Your task to perform on an android device: set the stopwatch Image 0: 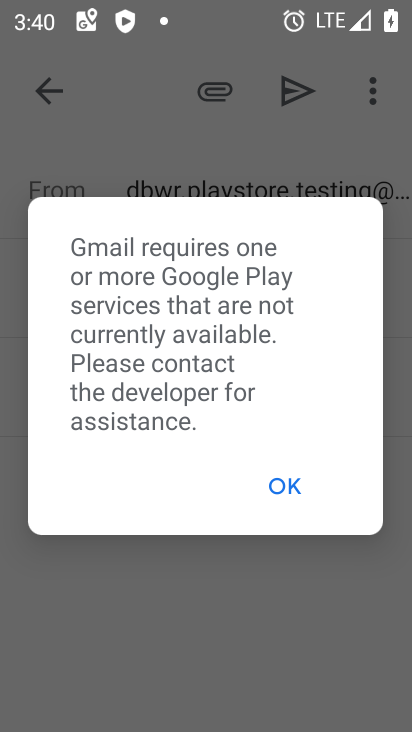
Step 0: drag from (331, 688) to (226, 159)
Your task to perform on an android device: set the stopwatch Image 1: 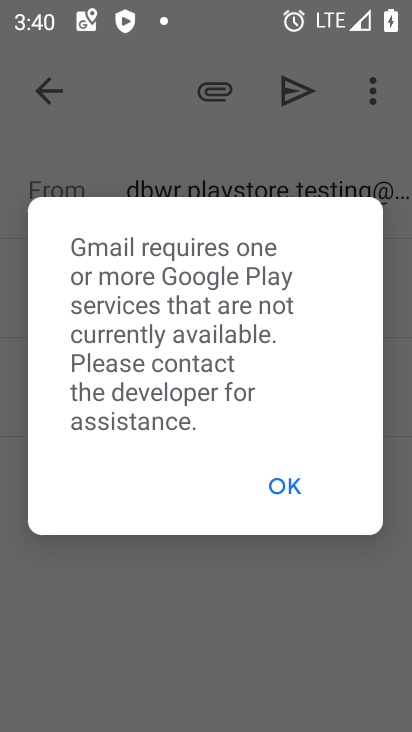
Step 1: click (273, 484)
Your task to perform on an android device: set the stopwatch Image 2: 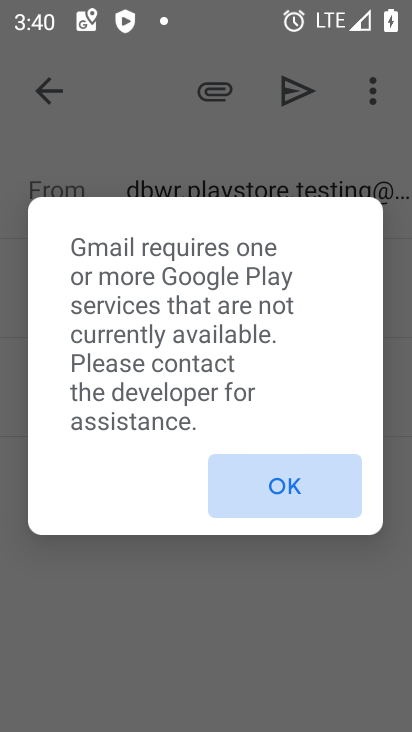
Step 2: click (268, 480)
Your task to perform on an android device: set the stopwatch Image 3: 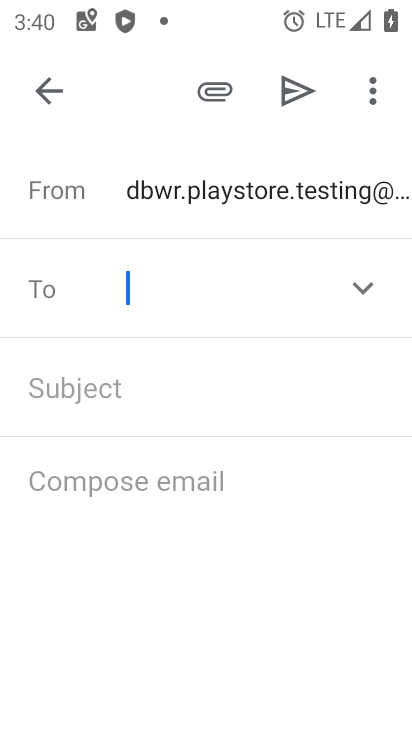
Step 3: click (268, 480)
Your task to perform on an android device: set the stopwatch Image 4: 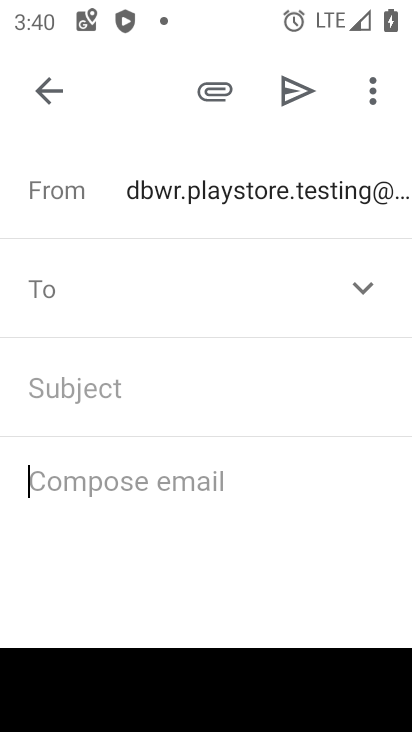
Step 4: click (70, 88)
Your task to perform on an android device: set the stopwatch Image 5: 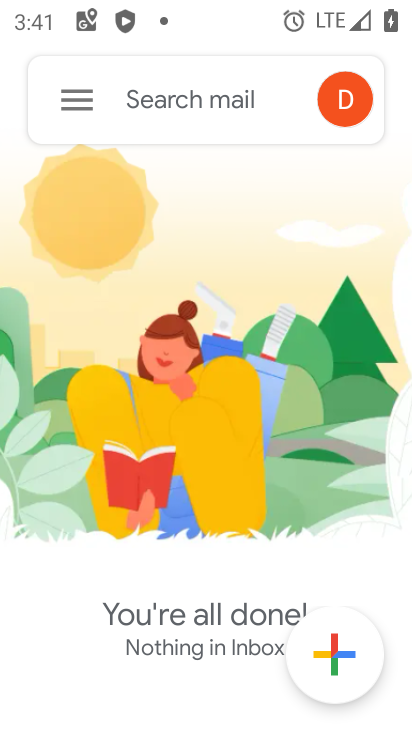
Step 5: press home button
Your task to perform on an android device: set the stopwatch Image 6: 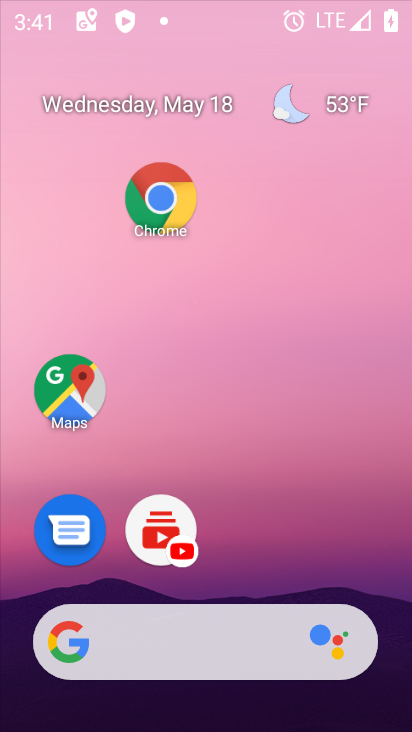
Step 6: press home button
Your task to perform on an android device: set the stopwatch Image 7: 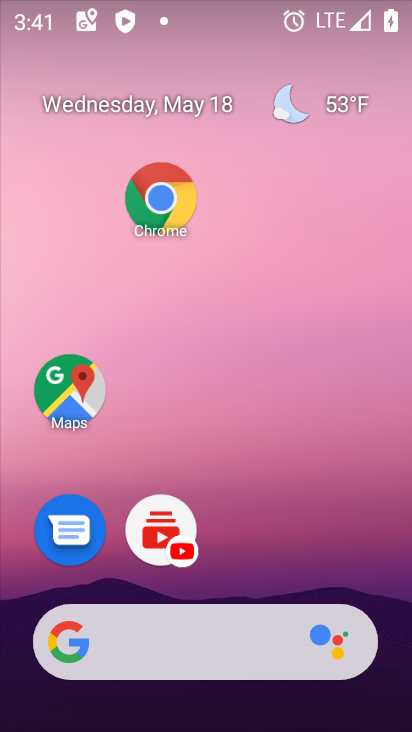
Step 7: drag from (257, 510) to (227, 24)
Your task to perform on an android device: set the stopwatch Image 8: 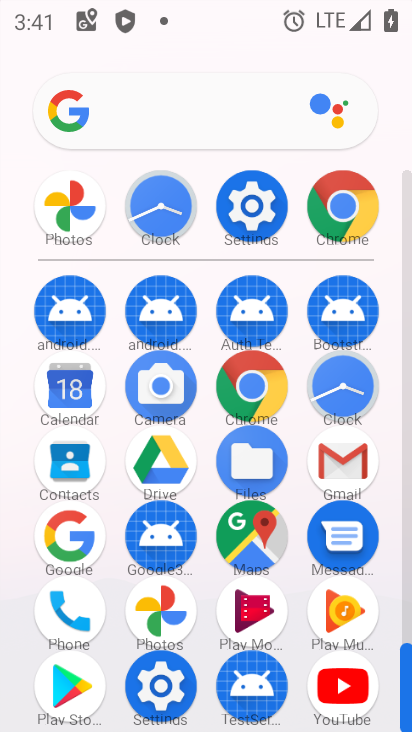
Step 8: drag from (316, 463) to (250, 5)
Your task to perform on an android device: set the stopwatch Image 9: 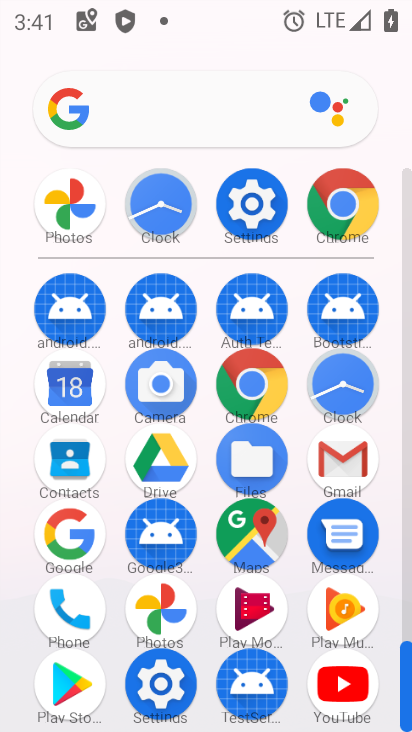
Step 9: click (329, 381)
Your task to perform on an android device: set the stopwatch Image 10: 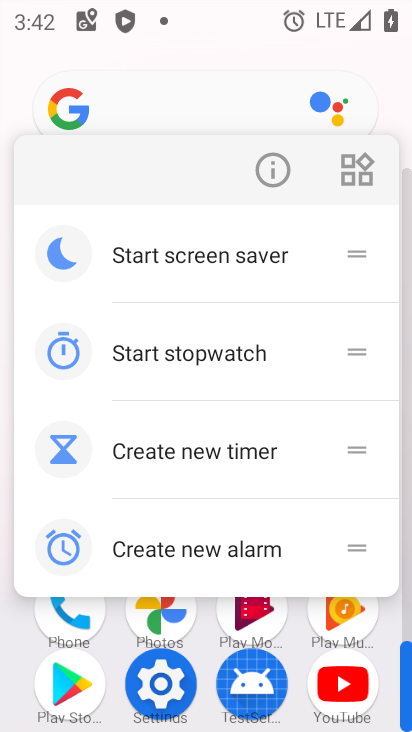
Step 10: click (238, 352)
Your task to perform on an android device: set the stopwatch Image 11: 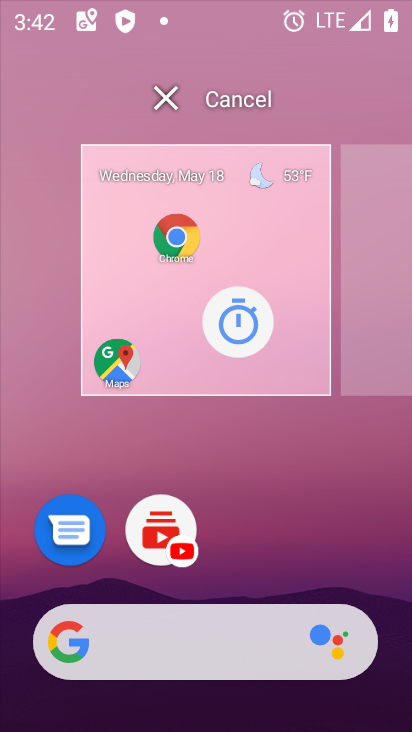
Step 11: click (236, 348)
Your task to perform on an android device: set the stopwatch Image 12: 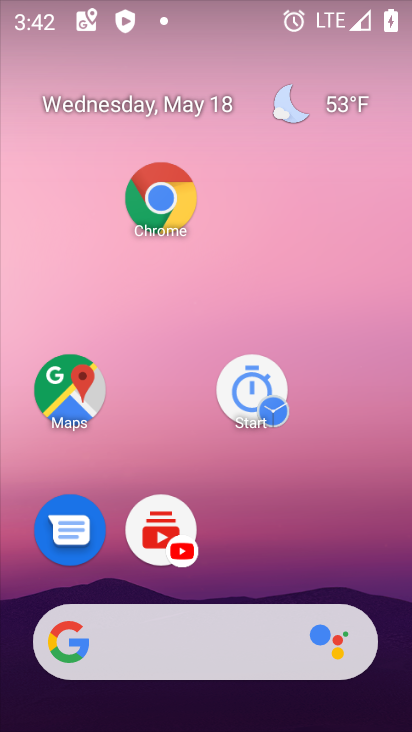
Step 12: drag from (314, 535) to (153, 114)
Your task to perform on an android device: set the stopwatch Image 13: 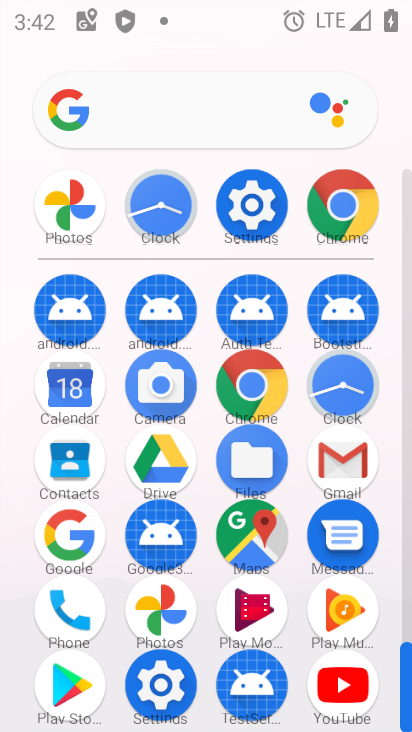
Step 13: drag from (331, 503) to (238, 36)
Your task to perform on an android device: set the stopwatch Image 14: 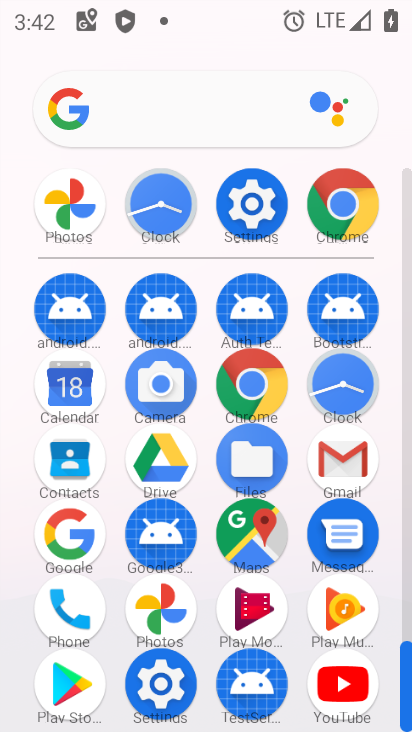
Step 14: click (336, 386)
Your task to perform on an android device: set the stopwatch Image 15: 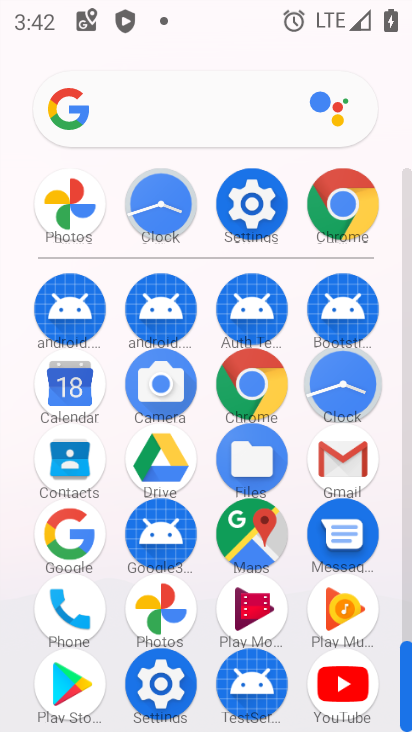
Step 15: click (337, 387)
Your task to perform on an android device: set the stopwatch Image 16: 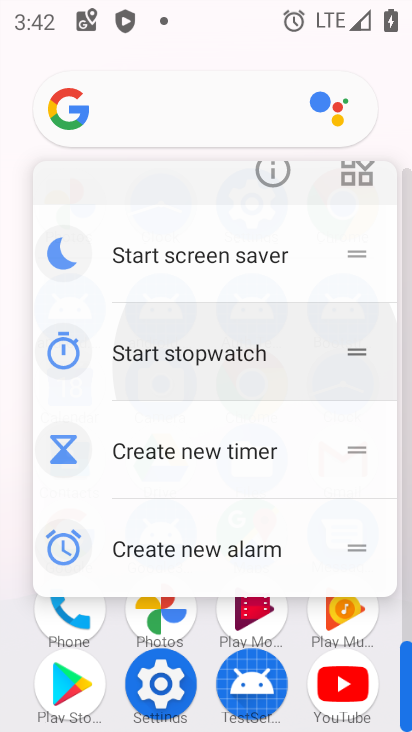
Step 16: click (337, 387)
Your task to perform on an android device: set the stopwatch Image 17: 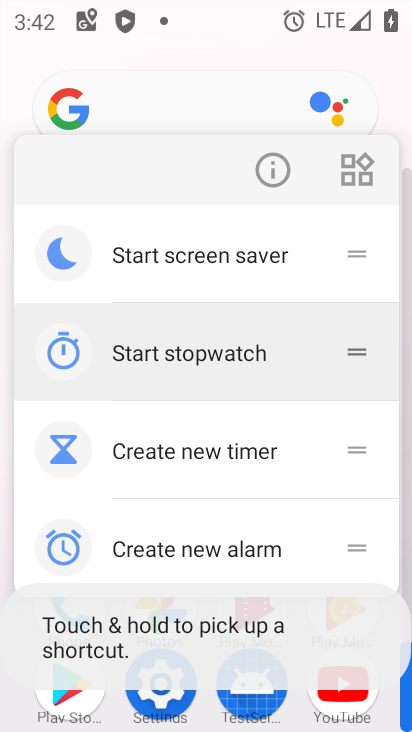
Step 17: click (337, 387)
Your task to perform on an android device: set the stopwatch Image 18: 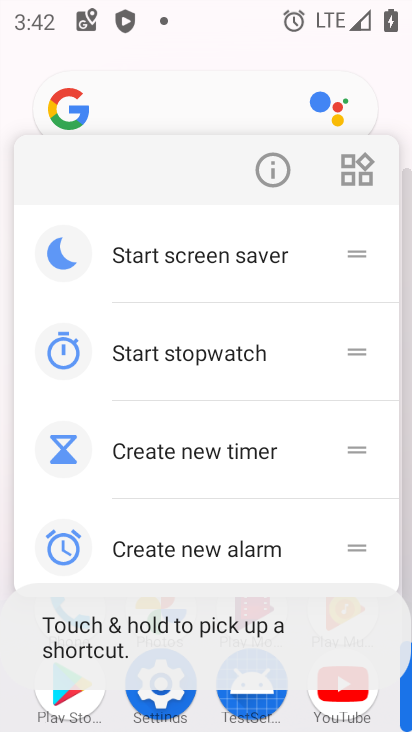
Step 18: click (196, 353)
Your task to perform on an android device: set the stopwatch Image 19: 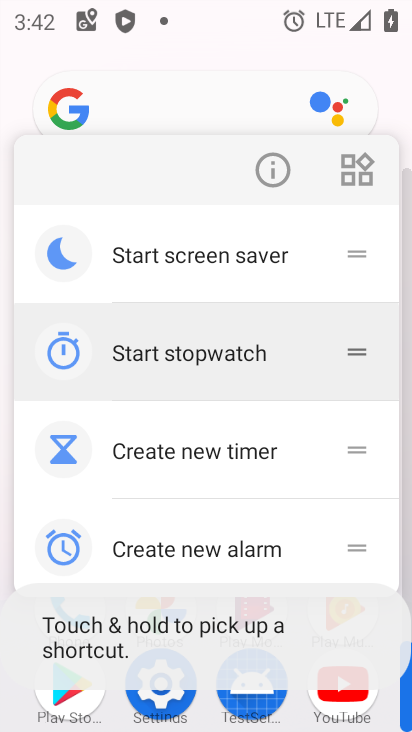
Step 19: click (194, 351)
Your task to perform on an android device: set the stopwatch Image 20: 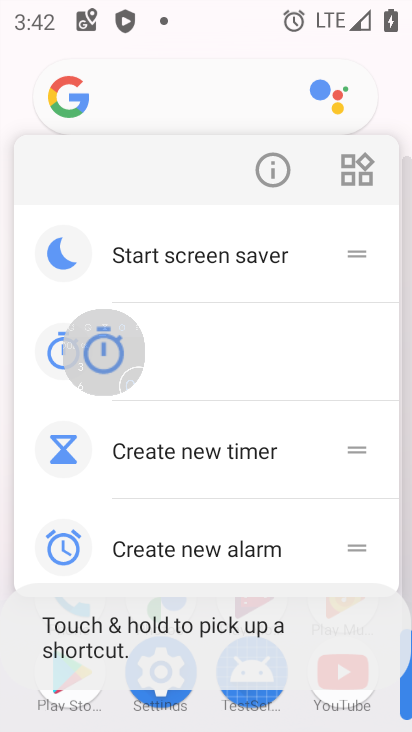
Step 20: click (195, 350)
Your task to perform on an android device: set the stopwatch Image 21: 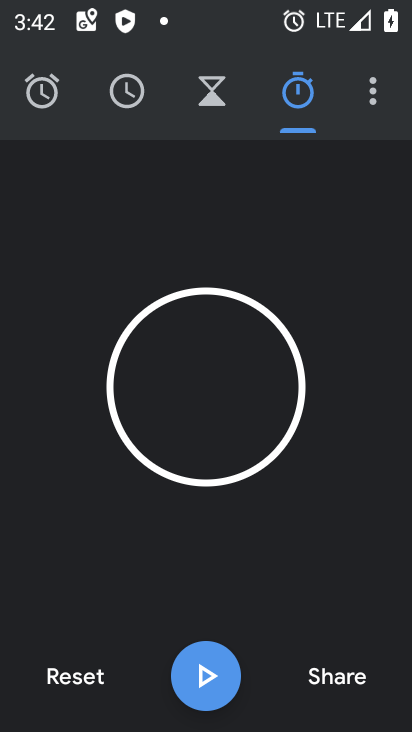
Step 21: click (207, 675)
Your task to perform on an android device: set the stopwatch Image 22: 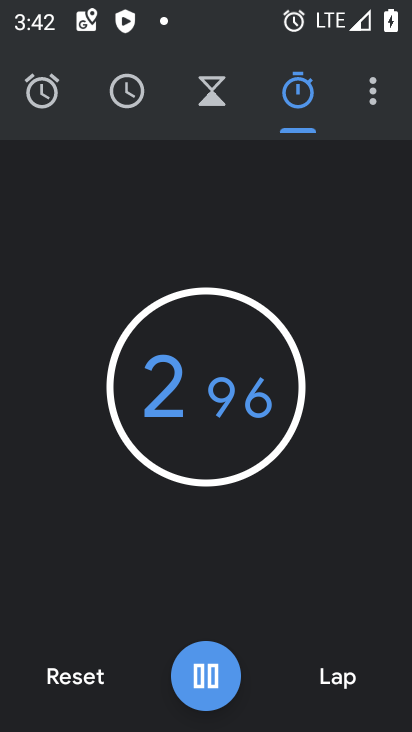
Step 22: click (207, 669)
Your task to perform on an android device: set the stopwatch Image 23: 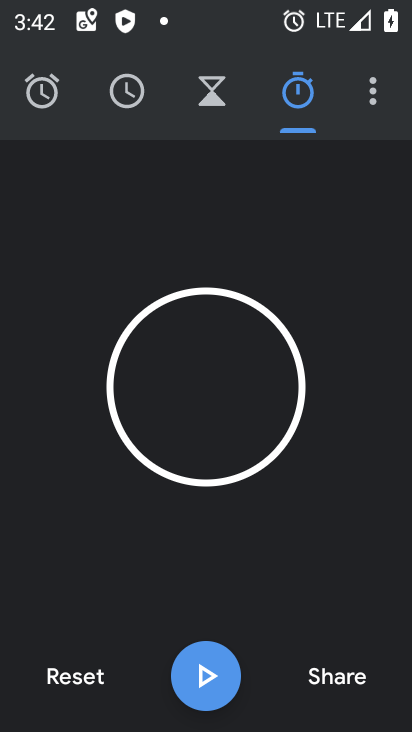
Step 23: task complete